Your task to perform on an android device: toggle pop-ups in chrome Image 0: 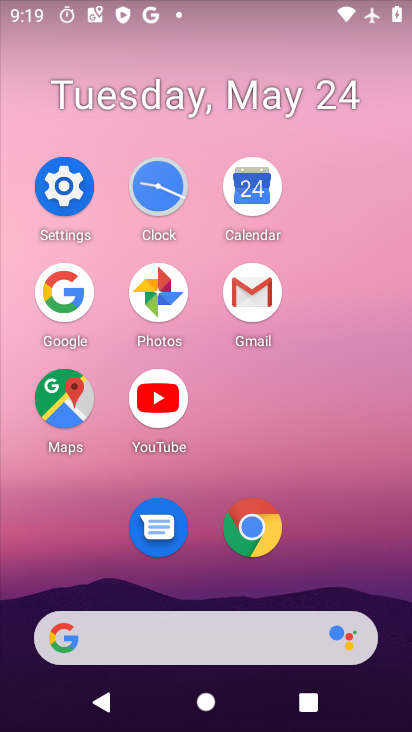
Step 0: click (270, 537)
Your task to perform on an android device: toggle pop-ups in chrome Image 1: 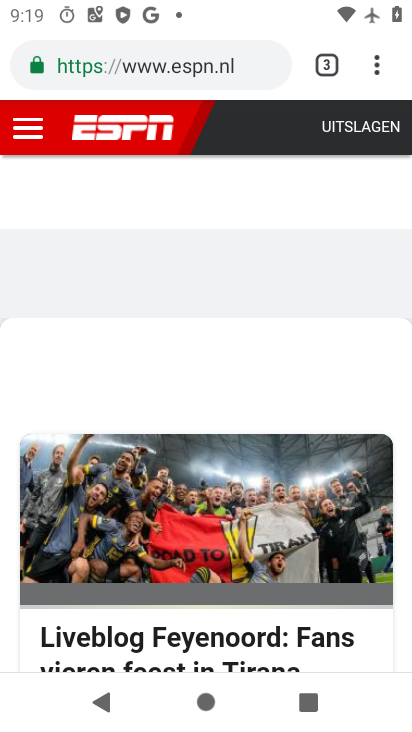
Step 1: click (383, 73)
Your task to perform on an android device: toggle pop-ups in chrome Image 2: 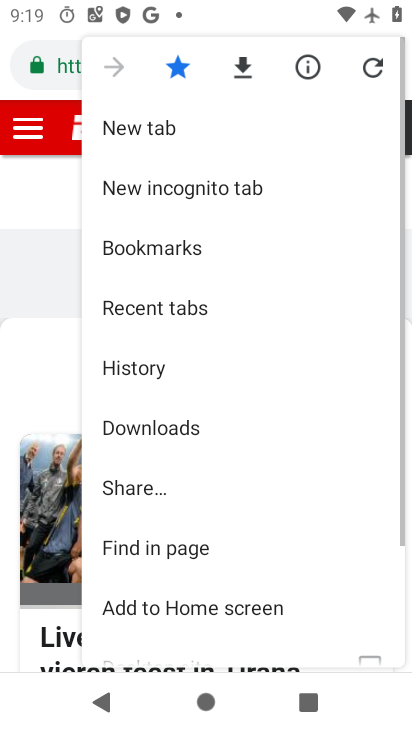
Step 2: drag from (256, 405) to (301, 198)
Your task to perform on an android device: toggle pop-ups in chrome Image 3: 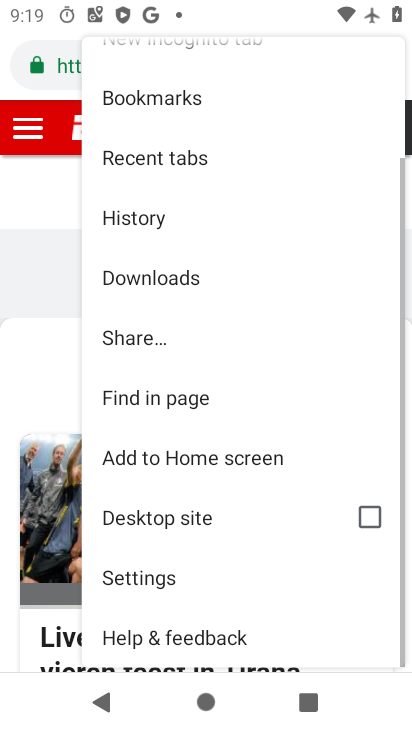
Step 3: click (180, 584)
Your task to perform on an android device: toggle pop-ups in chrome Image 4: 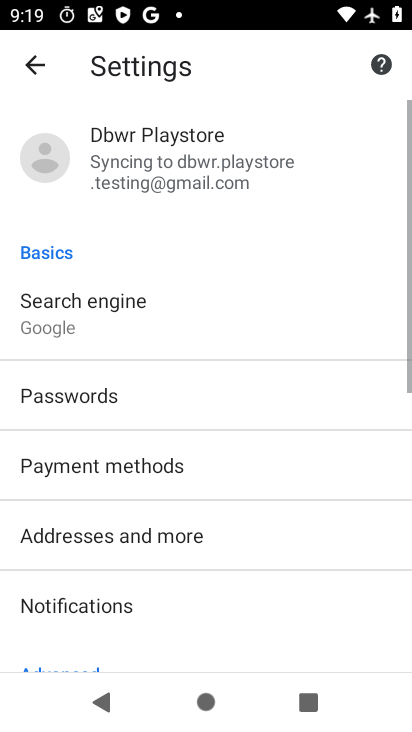
Step 4: drag from (180, 584) to (190, 189)
Your task to perform on an android device: toggle pop-ups in chrome Image 5: 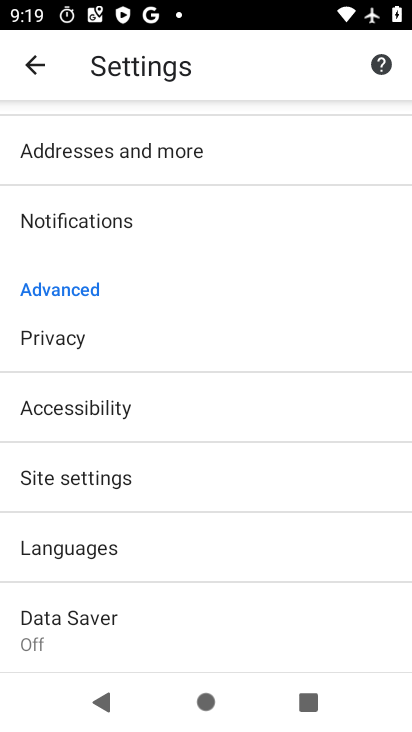
Step 5: click (107, 466)
Your task to perform on an android device: toggle pop-ups in chrome Image 6: 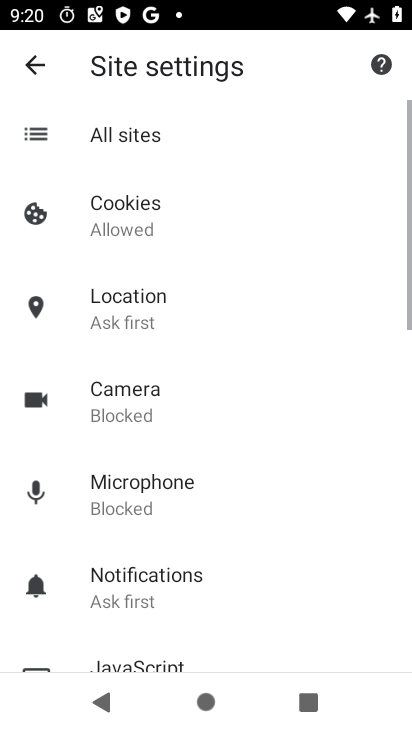
Step 6: drag from (149, 590) to (207, 141)
Your task to perform on an android device: toggle pop-ups in chrome Image 7: 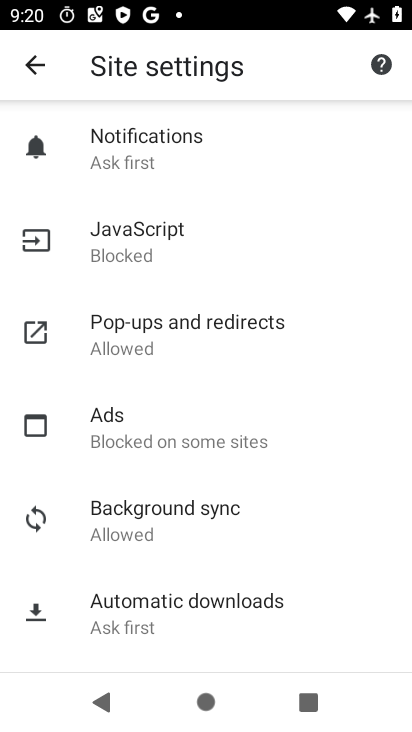
Step 7: click (198, 318)
Your task to perform on an android device: toggle pop-ups in chrome Image 8: 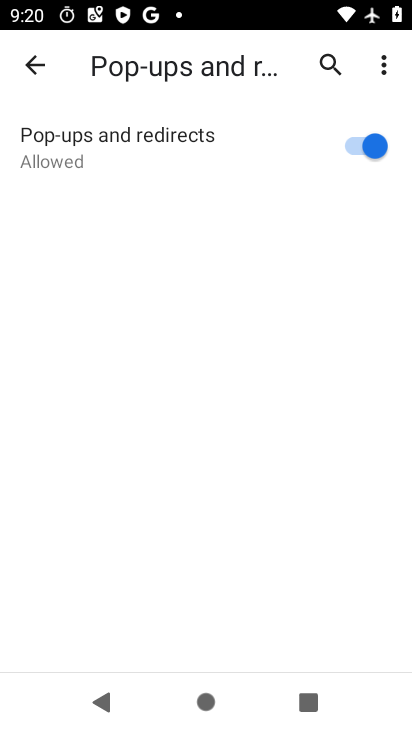
Step 8: task complete